Your task to perform on an android device: turn on sleep mode Image 0: 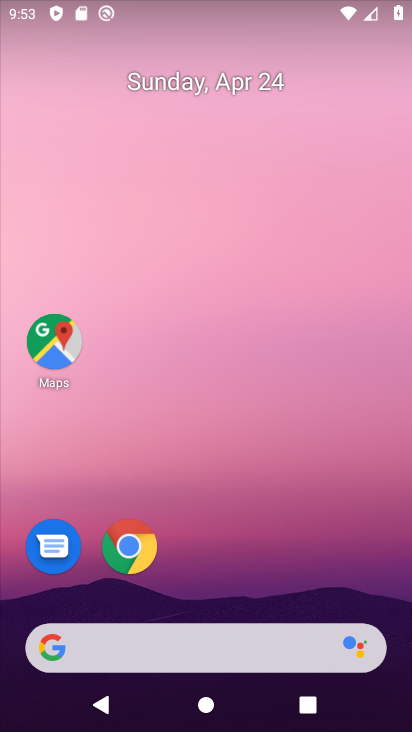
Step 0: drag from (308, 592) to (336, 34)
Your task to perform on an android device: turn on sleep mode Image 1: 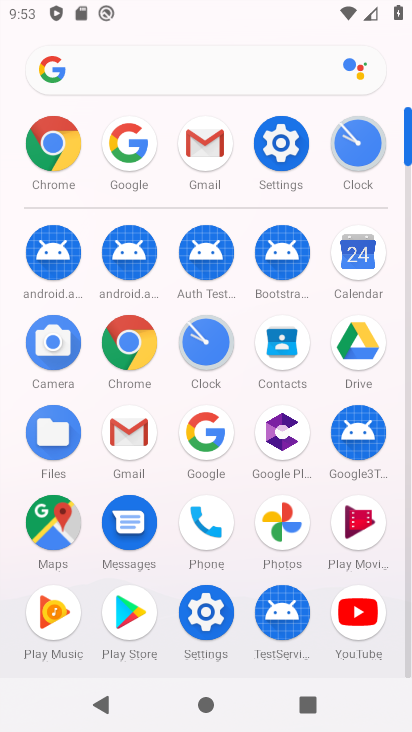
Step 1: click (307, 133)
Your task to perform on an android device: turn on sleep mode Image 2: 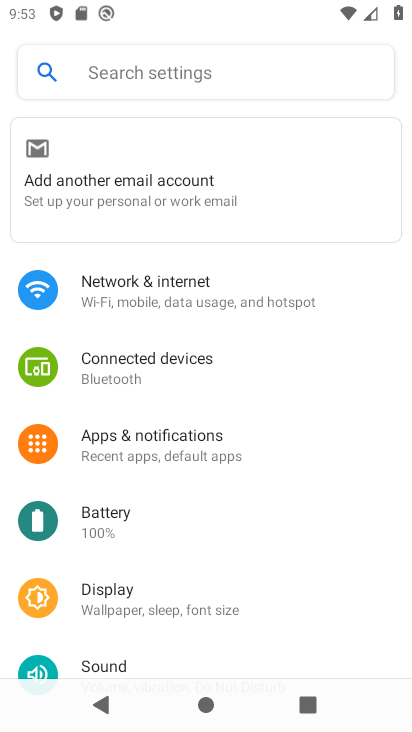
Step 2: drag from (209, 537) to (212, 68)
Your task to perform on an android device: turn on sleep mode Image 3: 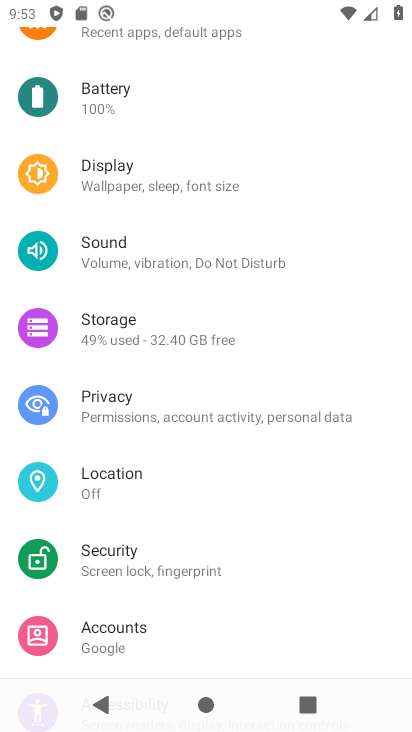
Step 3: click (178, 185)
Your task to perform on an android device: turn on sleep mode Image 4: 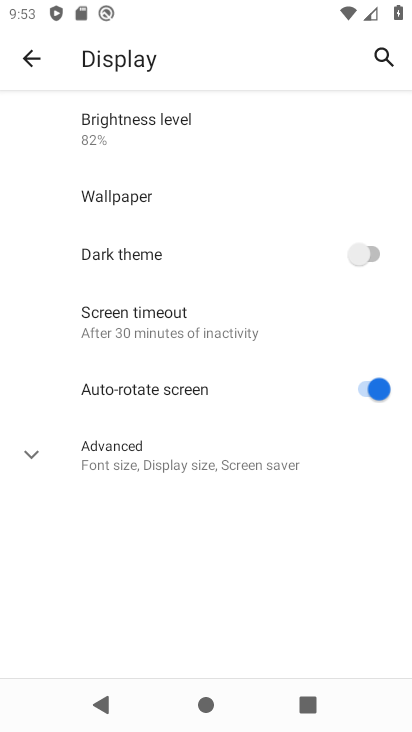
Step 4: click (116, 314)
Your task to perform on an android device: turn on sleep mode Image 5: 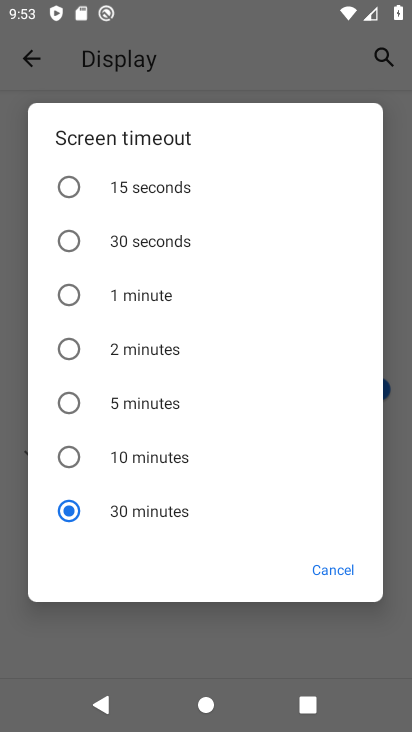
Step 5: task complete